Your task to perform on an android device: Go to settings Image 0: 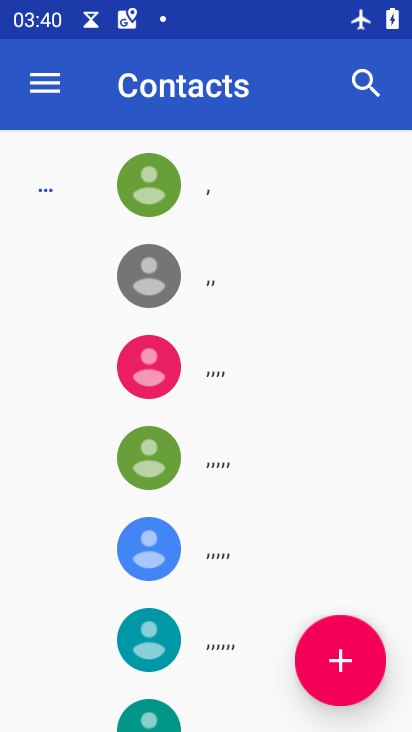
Step 0: press home button
Your task to perform on an android device: Go to settings Image 1: 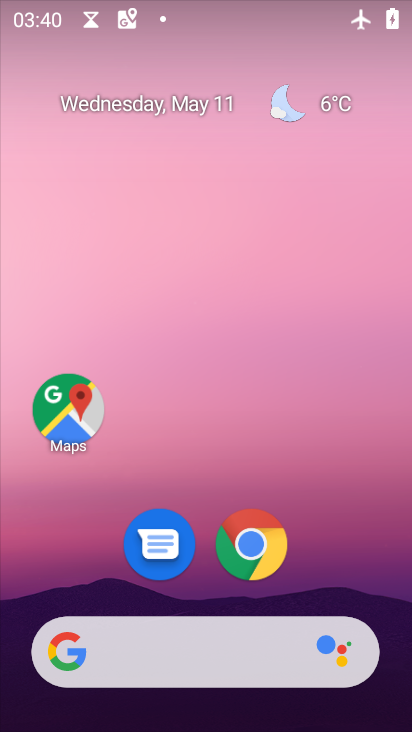
Step 1: drag from (327, 510) to (363, 49)
Your task to perform on an android device: Go to settings Image 2: 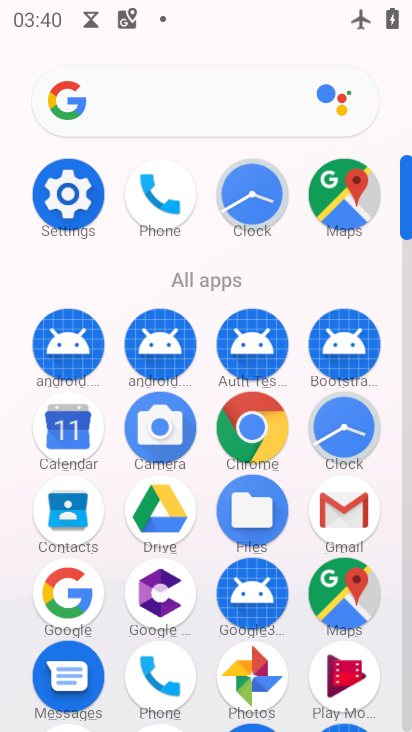
Step 2: click (74, 212)
Your task to perform on an android device: Go to settings Image 3: 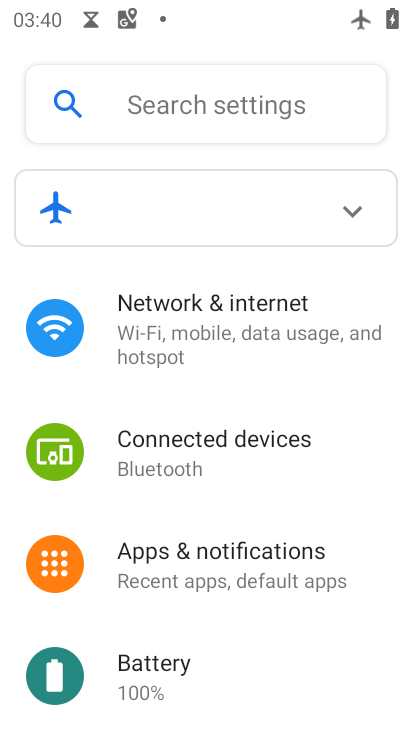
Step 3: task complete